Your task to perform on an android device: turn off picture-in-picture Image 0: 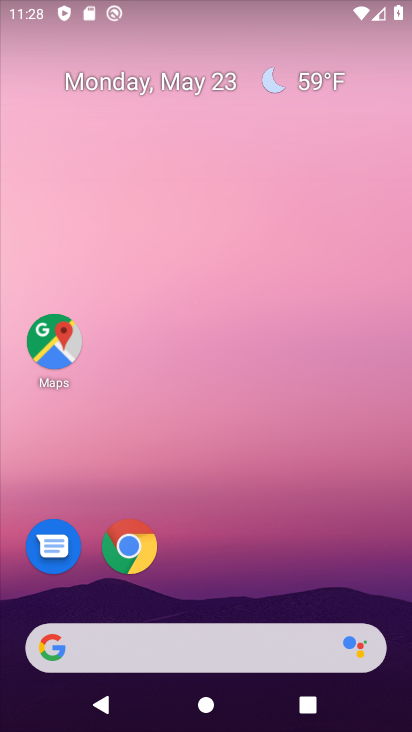
Step 0: drag from (243, 610) to (243, 411)
Your task to perform on an android device: turn off picture-in-picture Image 1: 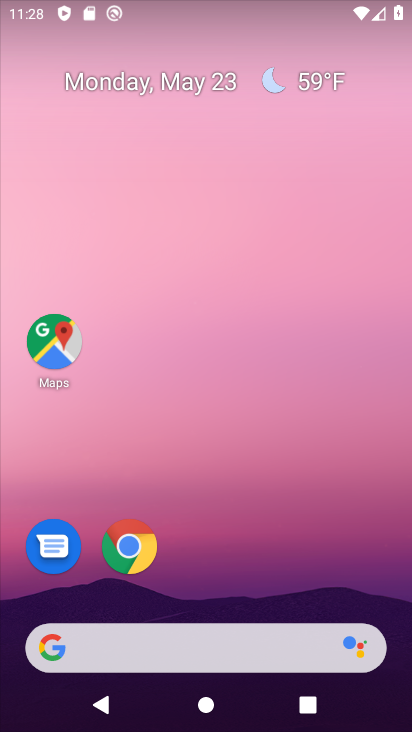
Step 1: drag from (192, 569) to (210, 74)
Your task to perform on an android device: turn off picture-in-picture Image 2: 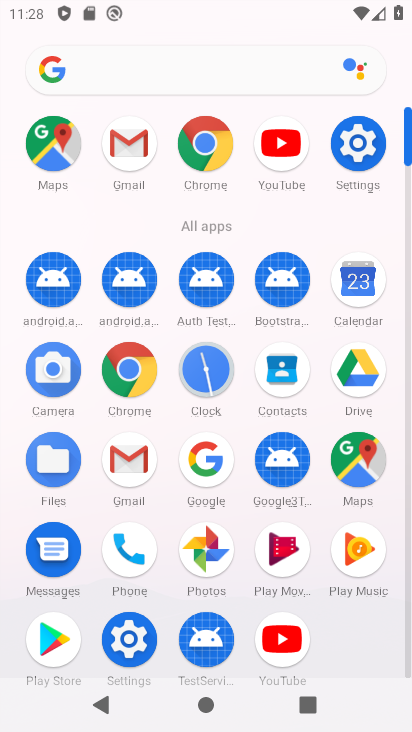
Step 2: click (352, 120)
Your task to perform on an android device: turn off picture-in-picture Image 3: 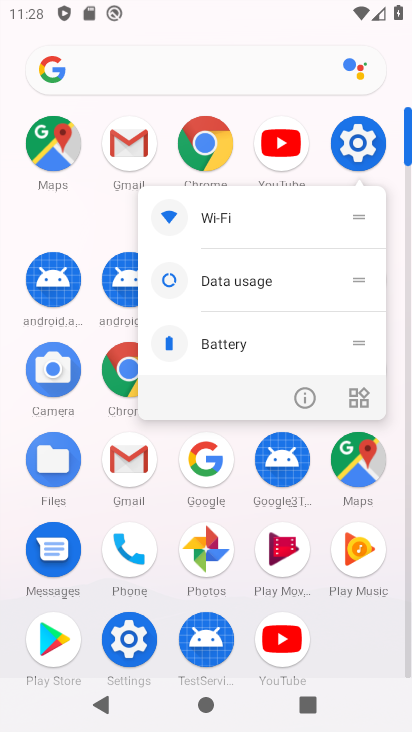
Step 3: click (311, 389)
Your task to perform on an android device: turn off picture-in-picture Image 4: 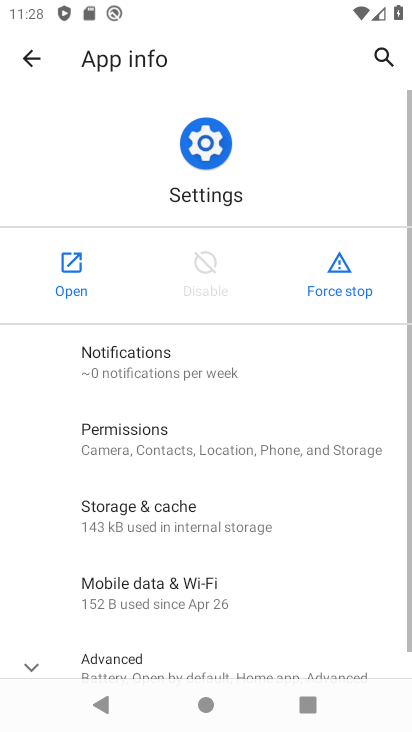
Step 4: click (75, 280)
Your task to perform on an android device: turn off picture-in-picture Image 5: 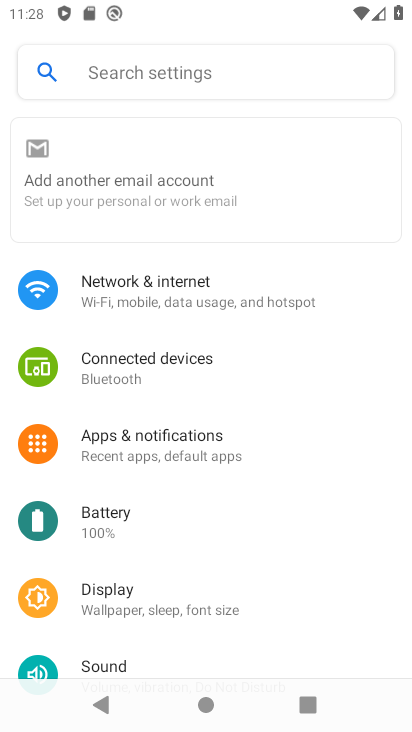
Step 5: drag from (224, 562) to (320, 80)
Your task to perform on an android device: turn off picture-in-picture Image 6: 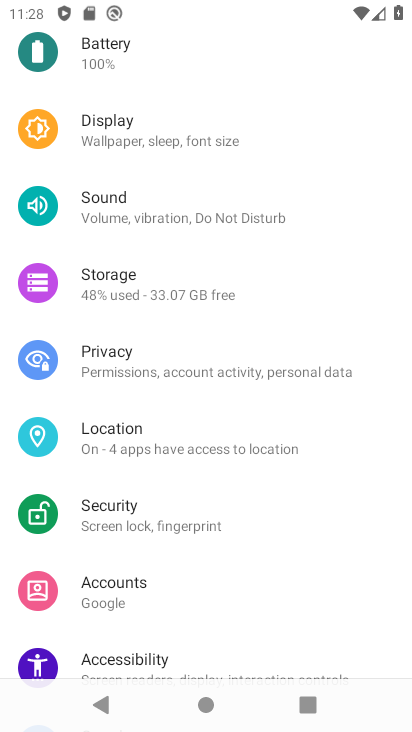
Step 6: drag from (170, 183) to (237, 704)
Your task to perform on an android device: turn off picture-in-picture Image 7: 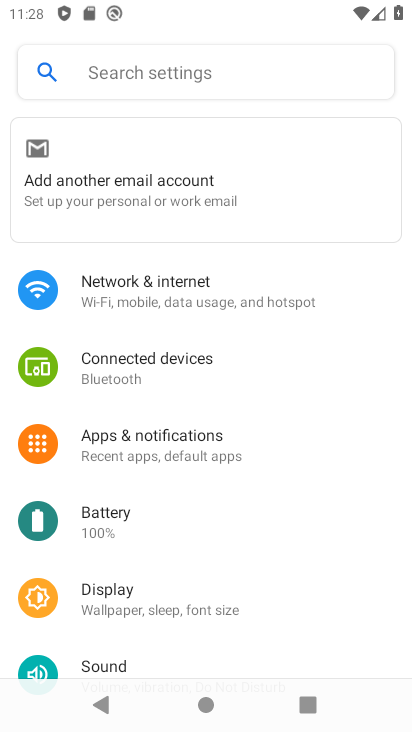
Step 7: click (170, 449)
Your task to perform on an android device: turn off picture-in-picture Image 8: 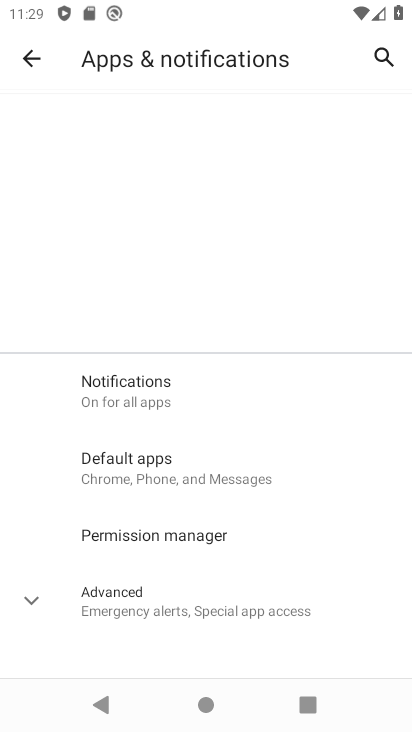
Step 8: drag from (210, 497) to (275, 113)
Your task to perform on an android device: turn off picture-in-picture Image 9: 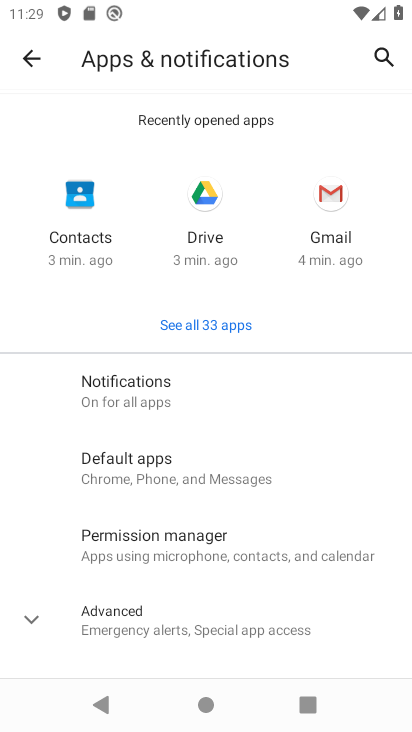
Step 9: click (181, 404)
Your task to perform on an android device: turn off picture-in-picture Image 10: 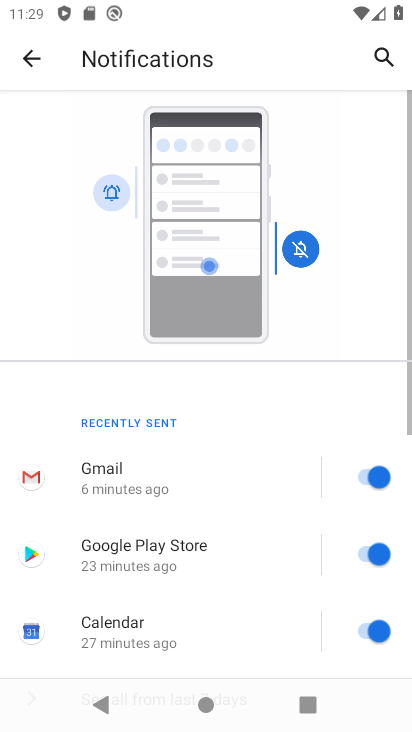
Step 10: drag from (287, 549) to (321, 168)
Your task to perform on an android device: turn off picture-in-picture Image 11: 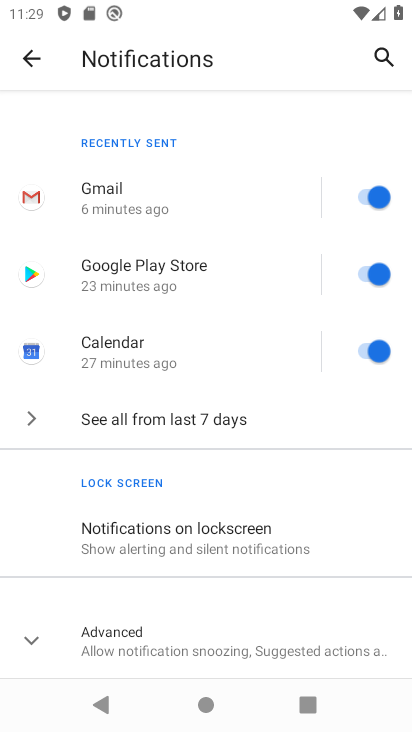
Step 11: click (149, 643)
Your task to perform on an android device: turn off picture-in-picture Image 12: 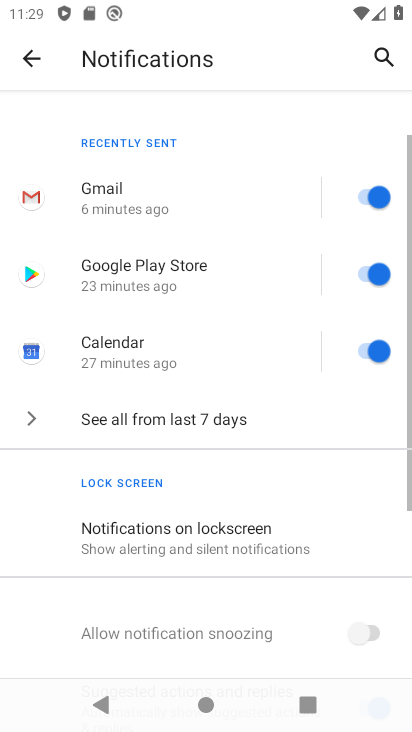
Step 12: drag from (207, 593) to (263, 118)
Your task to perform on an android device: turn off picture-in-picture Image 13: 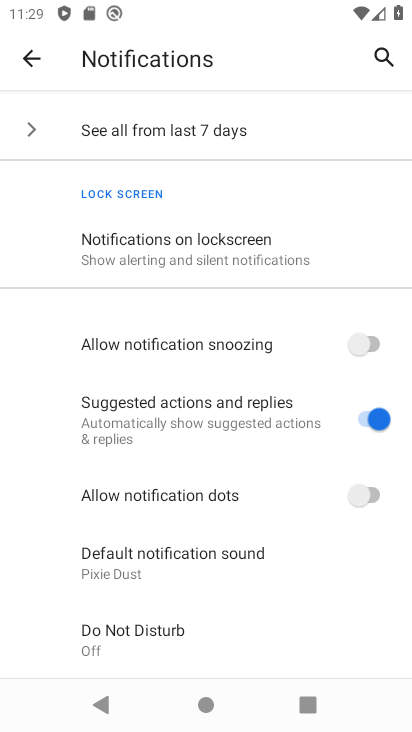
Step 13: drag from (187, 192) to (265, 612)
Your task to perform on an android device: turn off picture-in-picture Image 14: 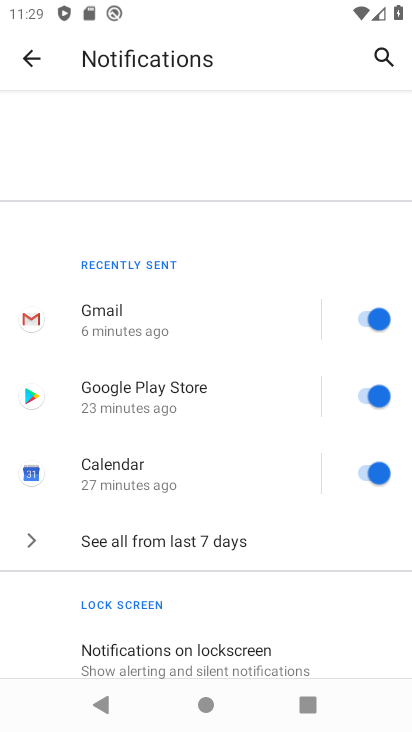
Step 14: click (29, 61)
Your task to perform on an android device: turn off picture-in-picture Image 15: 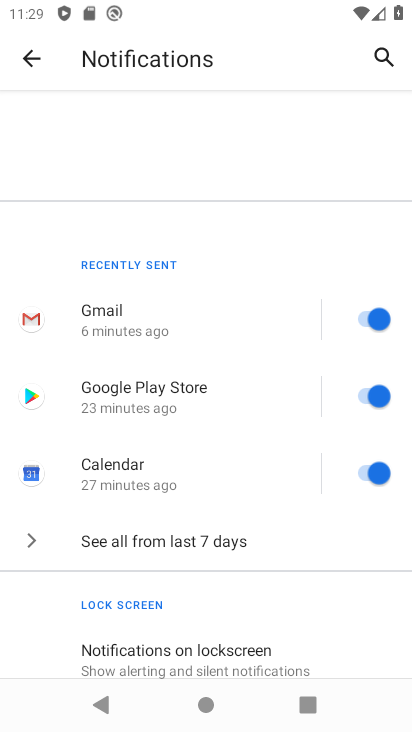
Step 15: drag from (198, 567) to (292, 48)
Your task to perform on an android device: turn off picture-in-picture Image 16: 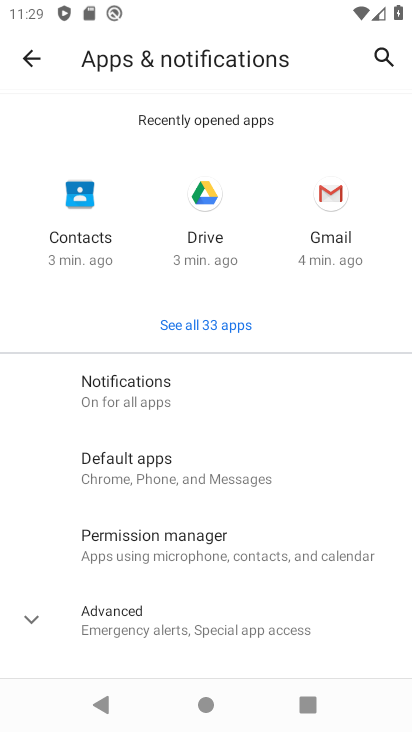
Step 16: click (167, 612)
Your task to perform on an android device: turn off picture-in-picture Image 17: 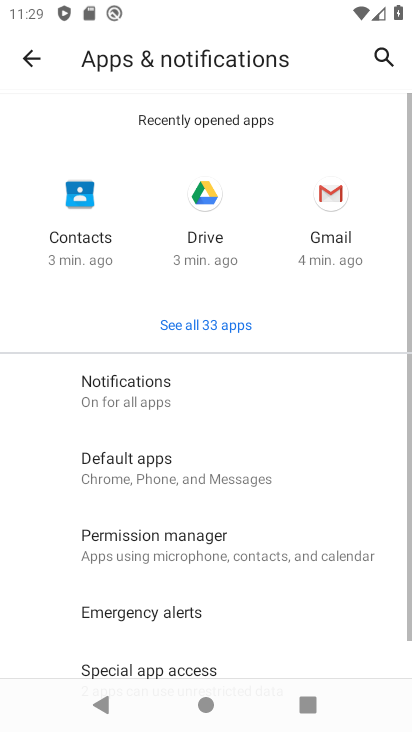
Step 17: drag from (165, 609) to (291, 147)
Your task to perform on an android device: turn off picture-in-picture Image 18: 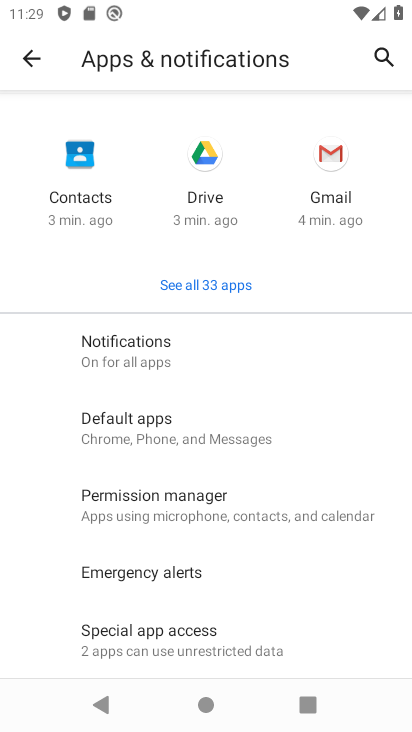
Step 18: click (188, 639)
Your task to perform on an android device: turn off picture-in-picture Image 19: 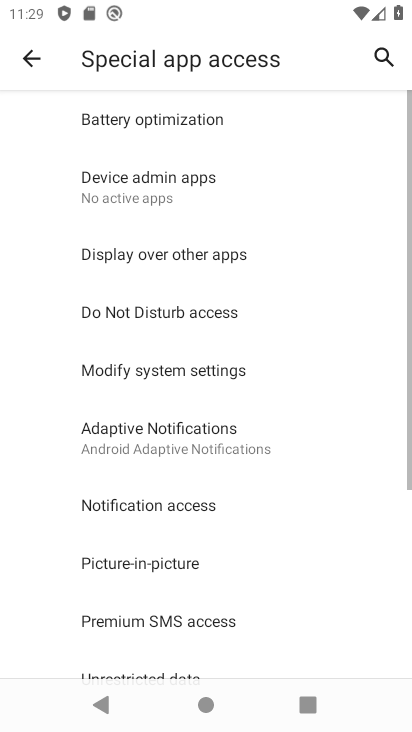
Step 19: drag from (197, 626) to (340, 22)
Your task to perform on an android device: turn off picture-in-picture Image 20: 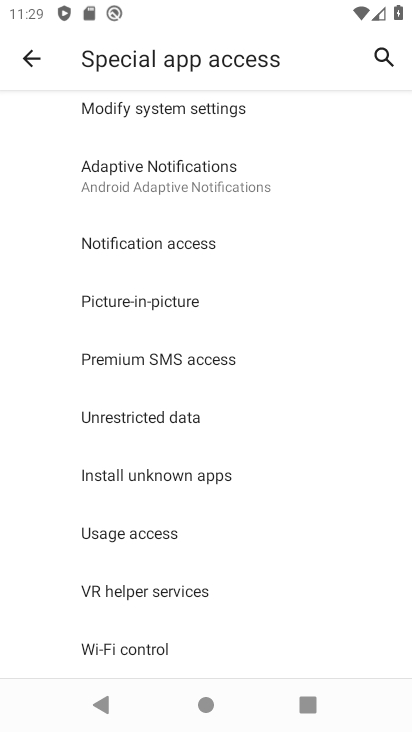
Step 20: click (155, 296)
Your task to perform on an android device: turn off picture-in-picture Image 21: 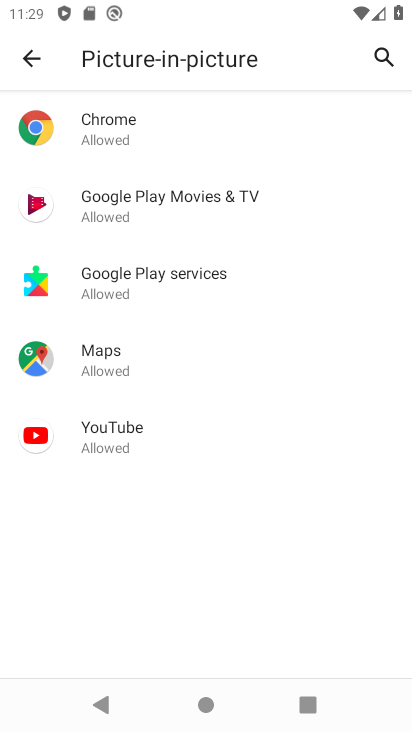
Step 21: drag from (245, 447) to (271, 221)
Your task to perform on an android device: turn off picture-in-picture Image 22: 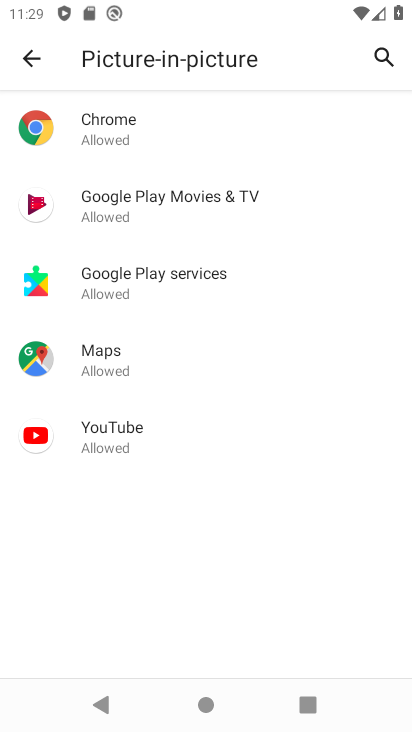
Step 22: drag from (259, 158) to (197, 543)
Your task to perform on an android device: turn off picture-in-picture Image 23: 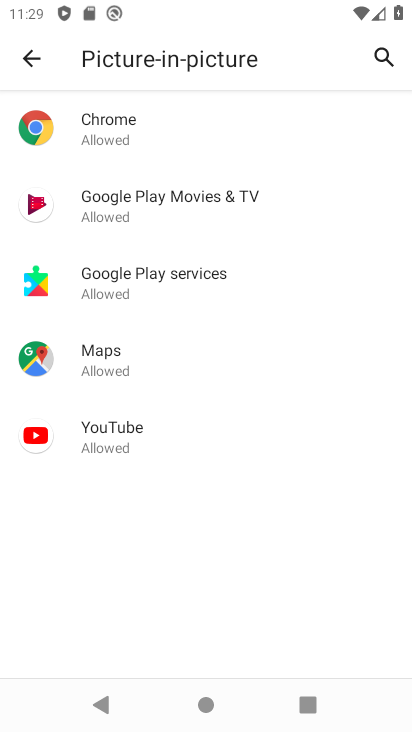
Step 23: drag from (201, 534) to (259, 171)
Your task to perform on an android device: turn off picture-in-picture Image 24: 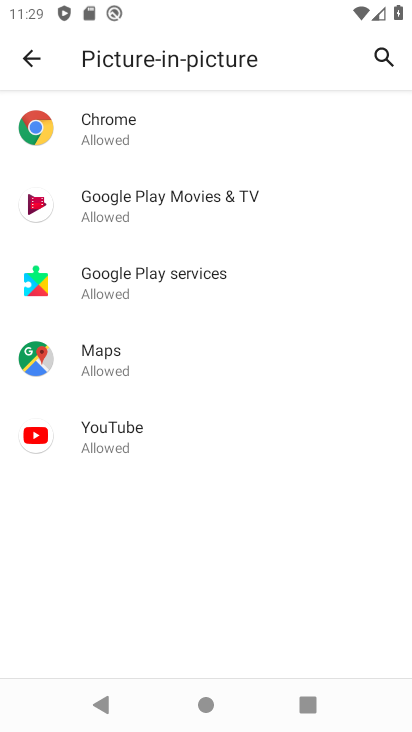
Step 24: click (110, 50)
Your task to perform on an android device: turn off picture-in-picture Image 25: 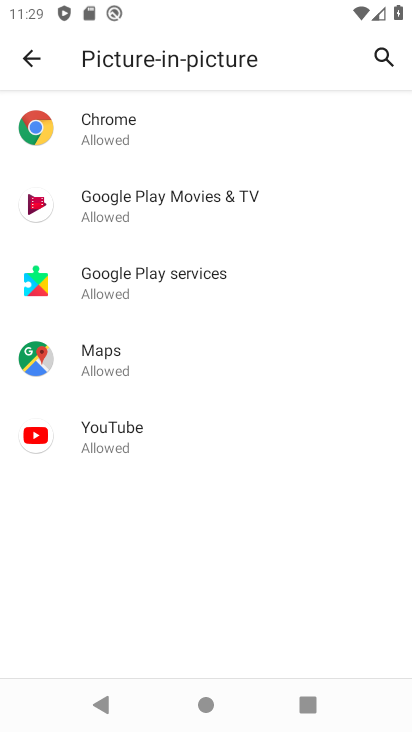
Step 25: task complete